Your task to perform on an android device: open app "HBO Max: Stream TV & Movies" (install if not already installed), go to login, and select forgot password Image 0: 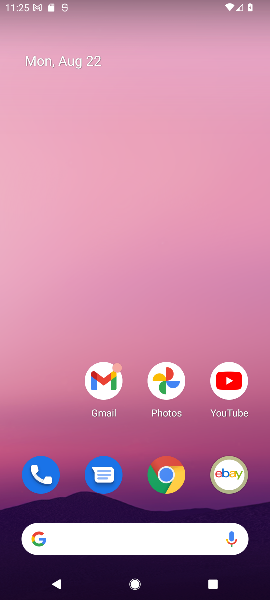
Step 0: drag from (133, 484) to (107, 11)
Your task to perform on an android device: open app "HBO Max: Stream TV & Movies" (install if not already installed), go to login, and select forgot password Image 1: 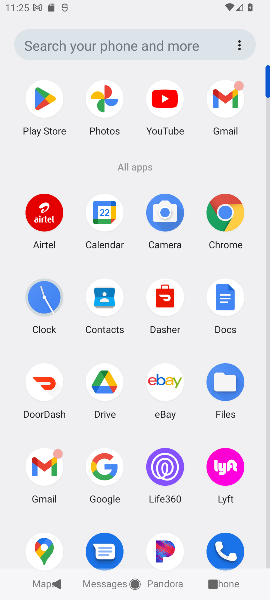
Step 1: click (44, 101)
Your task to perform on an android device: open app "HBO Max: Stream TV & Movies" (install if not already installed), go to login, and select forgot password Image 2: 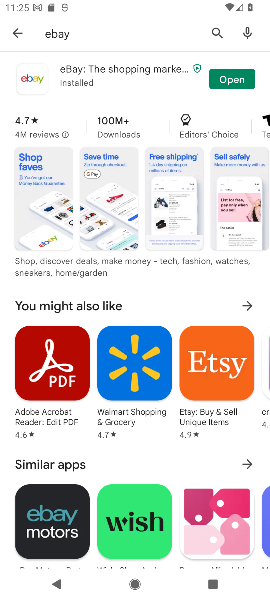
Step 2: click (19, 37)
Your task to perform on an android device: open app "HBO Max: Stream TV & Movies" (install if not already installed), go to login, and select forgot password Image 3: 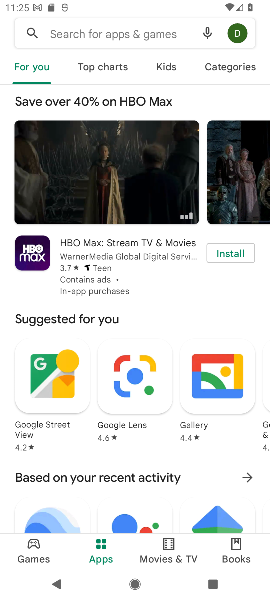
Step 3: click (99, 32)
Your task to perform on an android device: open app "HBO Max: Stream TV & Movies" (install if not already installed), go to login, and select forgot password Image 4: 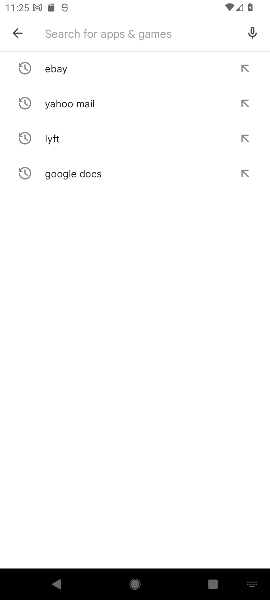
Step 4: type "HBO Max: Stream TV & Movies"
Your task to perform on an android device: open app "HBO Max: Stream TV & Movies" (install if not already installed), go to login, and select forgot password Image 5: 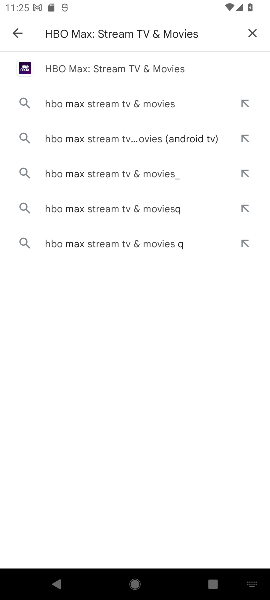
Step 5: click (154, 68)
Your task to perform on an android device: open app "HBO Max: Stream TV & Movies" (install if not already installed), go to login, and select forgot password Image 6: 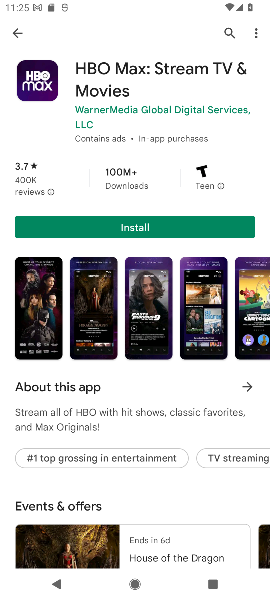
Step 6: click (137, 225)
Your task to perform on an android device: open app "HBO Max: Stream TV & Movies" (install if not already installed), go to login, and select forgot password Image 7: 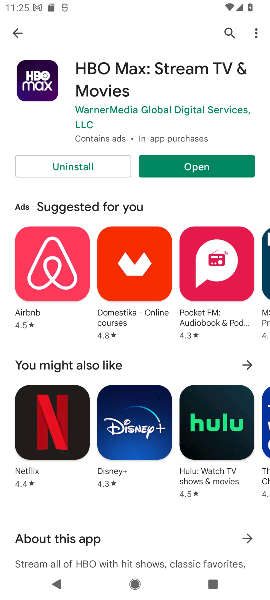
Step 7: click (201, 166)
Your task to perform on an android device: open app "HBO Max: Stream TV & Movies" (install if not already installed), go to login, and select forgot password Image 8: 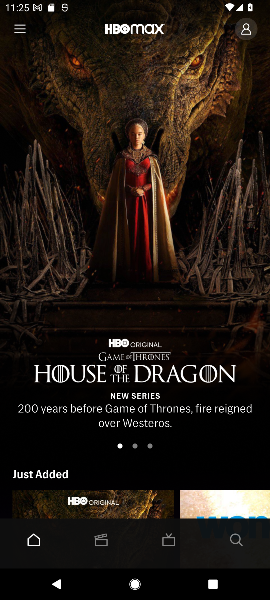
Step 8: task complete